Your task to perform on an android device: Open Google Maps Image 0: 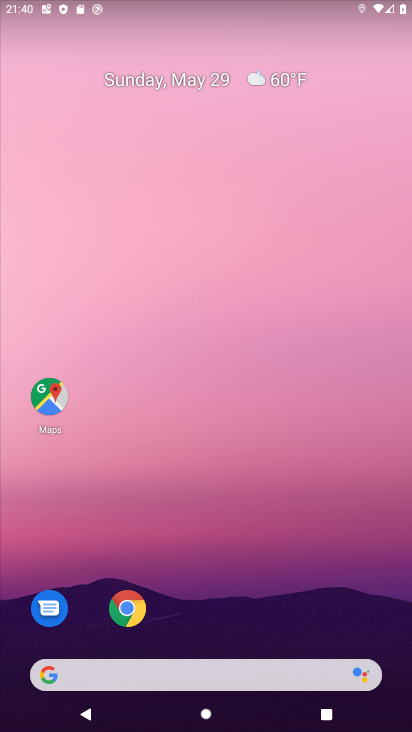
Step 0: drag from (376, 627) to (389, 201)
Your task to perform on an android device: Open Google Maps Image 1: 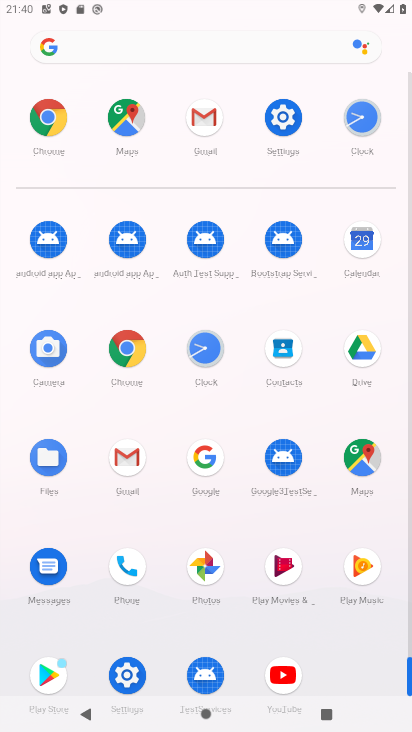
Step 1: click (375, 462)
Your task to perform on an android device: Open Google Maps Image 2: 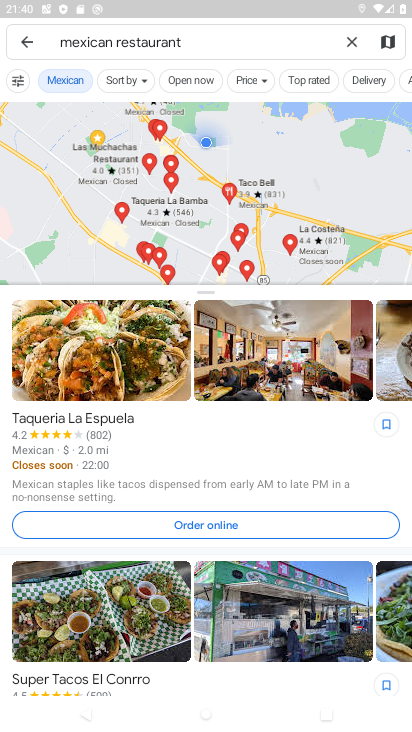
Step 2: task complete